Your task to perform on an android device: delete a single message in the gmail app Image 0: 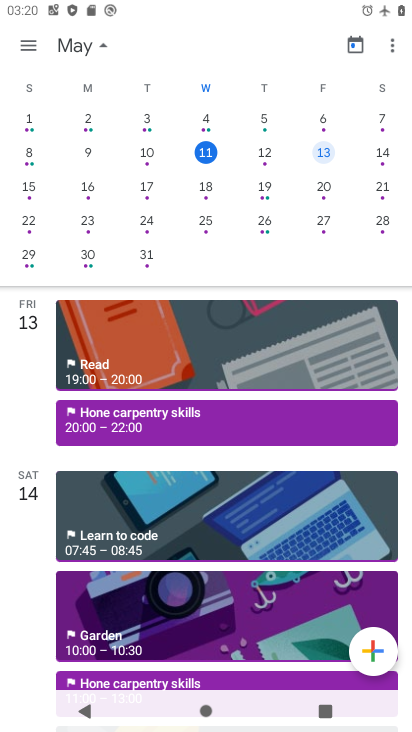
Step 0: press home button
Your task to perform on an android device: delete a single message in the gmail app Image 1: 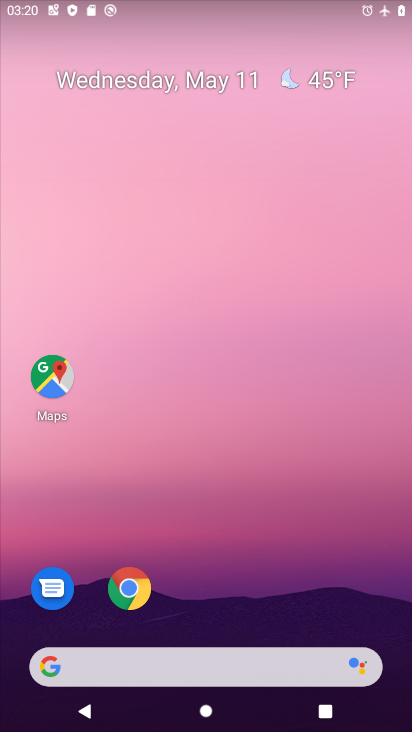
Step 1: drag from (232, 611) to (228, 155)
Your task to perform on an android device: delete a single message in the gmail app Image 2: 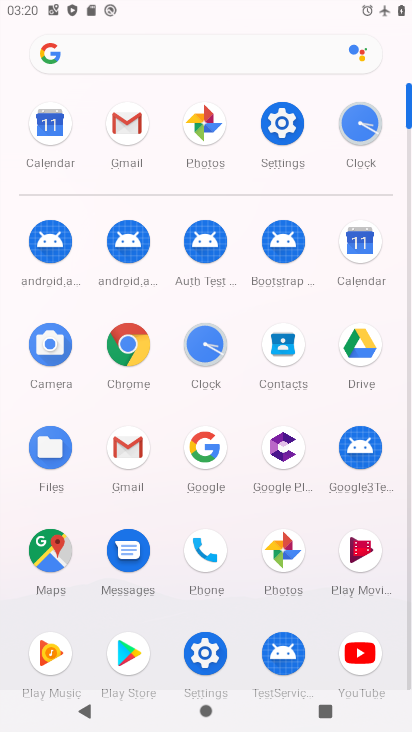
Step 2: click (126, 130)
Your task to perform on an android device: delete a single message in the gmail app Image 3: 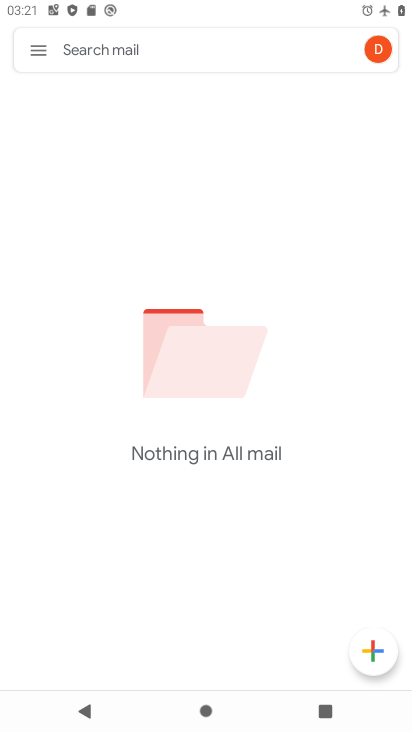
Step 3: click (46, 58)
Your task to perform on an android device: delete a single message in the gmail app Image 4: 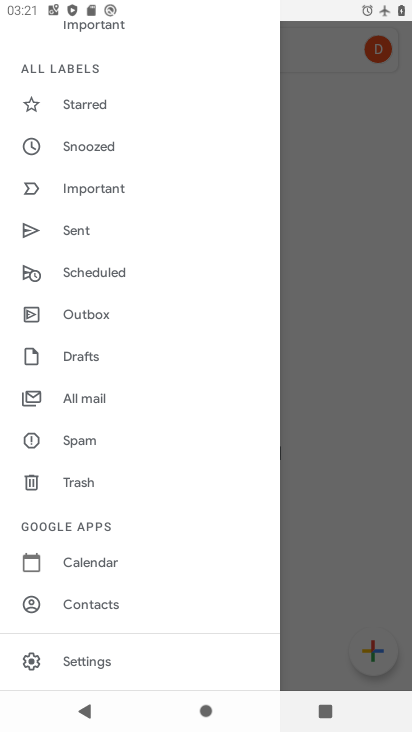
Step 4: click (104, 390)
Your task to perform on an android device: delete a single message in the gmail app Image 5: 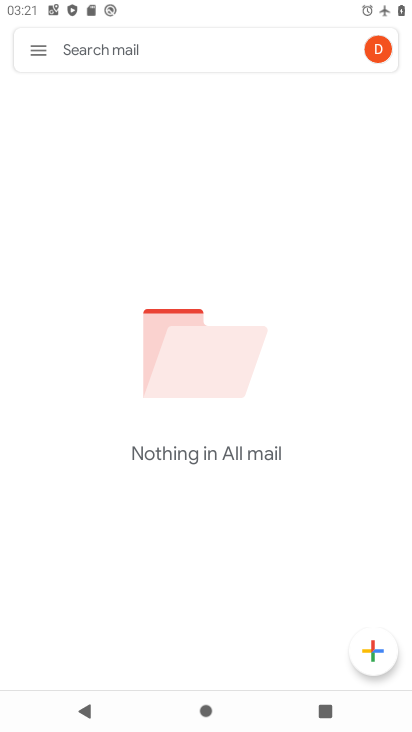
Step 5: task complete